Your task to perform on an android device: Search for Italian restaurants on Maps Image 0: 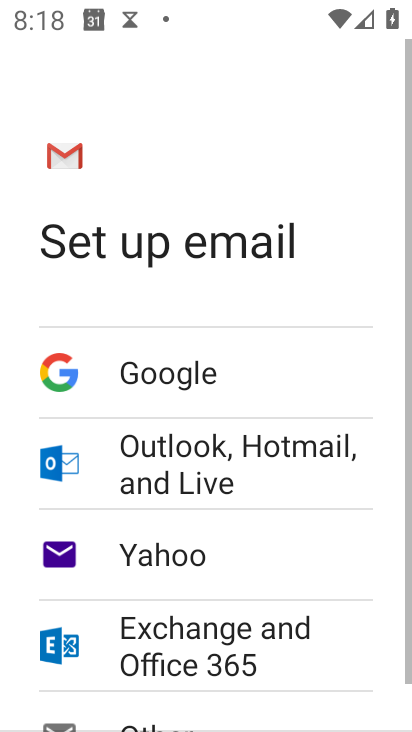
Step 0: press home button
Your task to perform on an android device: Search for Italian restaurants on Maps Image 1: 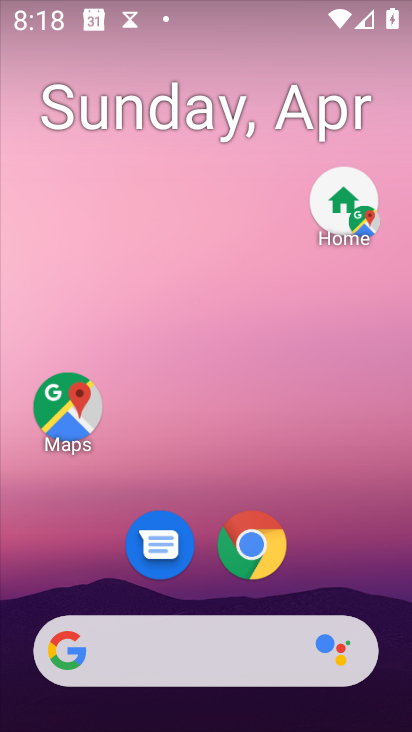
Step 1: drag from (223, 577) to (259, 232)
Your task to perform on an android device: Search for Italian restaurants on Maps Image 2: 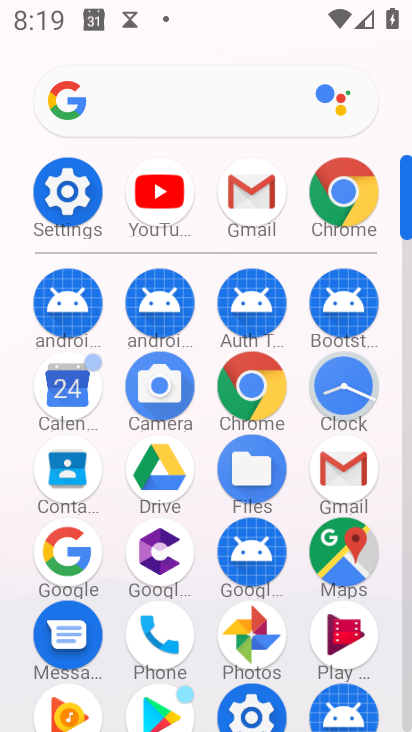
Step 2: drag from (213, 653) to (209, 263)
Your task to perform on an android device: Search for Italian restaurants on Maps Image 3: 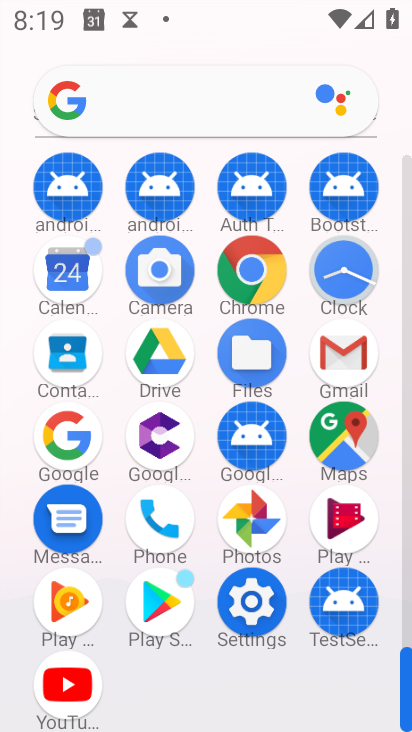
Step 3: click (359, 434)
Your task to perform on an android device: Search for Italian restaurants on Maps Image 4: 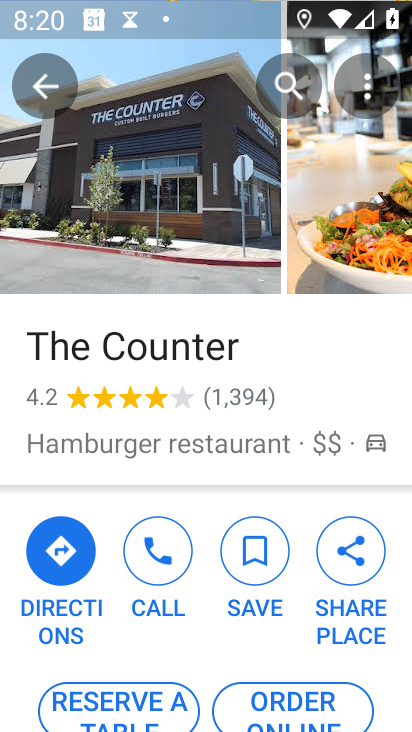
Step 4: press back button
Your task to perform on an android device: Search for Italian restaurants on Maps Image 5: 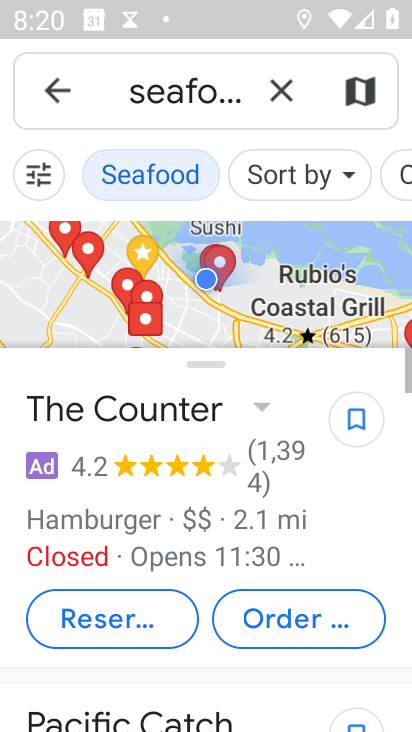
Step 5: click (284, 88)
Your task to perform on an android device: Search for Italian restaurants on Maps Image 6: 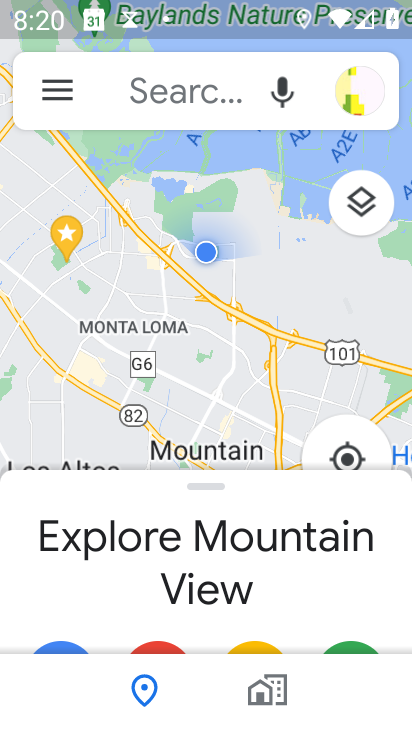
Step 6: click (172, 88)
Your task to perform on an android device: Search for Italian restaurants on Maps Image 7: 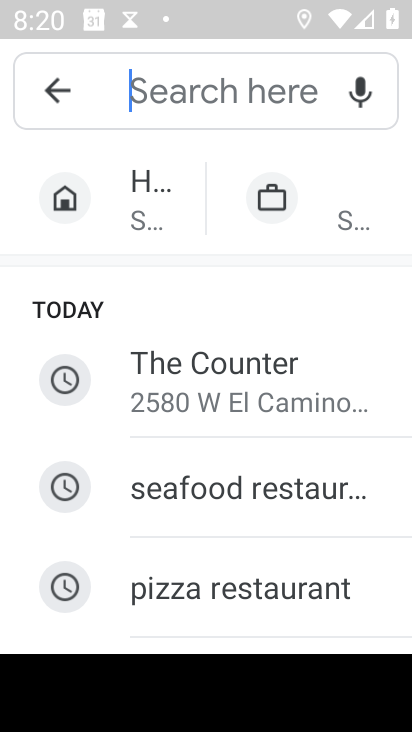
Step 7: type " Italian restaurants "
Your task to perform on an android device: Search for Italian restaurants on Maps Image 8: 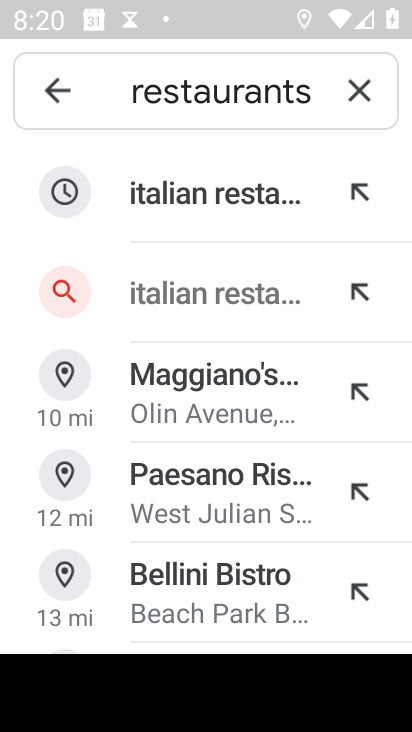
Step 8: click (258, 196)
Your task to perform on an android device: Search for Italian restaurants on Maps Image 9: 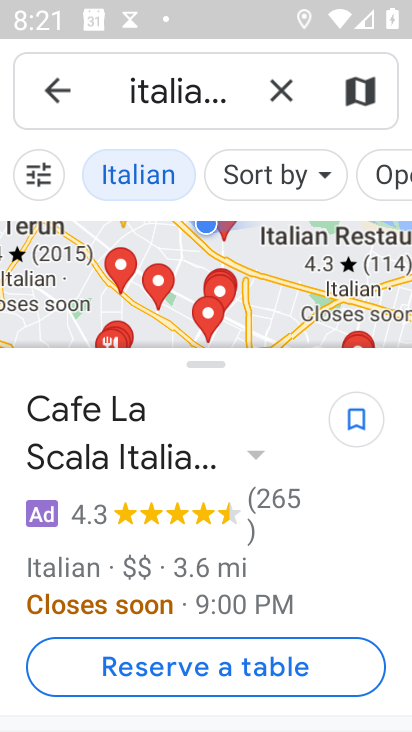
Step 9: click (144, 425)
Your task to perform on an android device: Search for Italian restaurants on Maps Image 10: 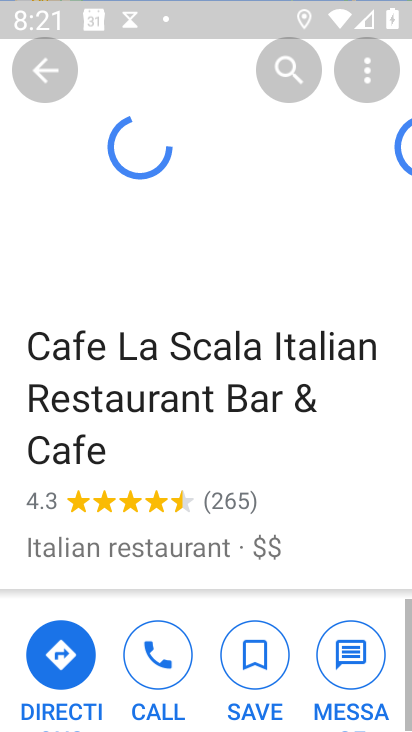
Step 10: task complete